Your task to perform on an android device: Show me productivity apps on the Play Store Image 0: 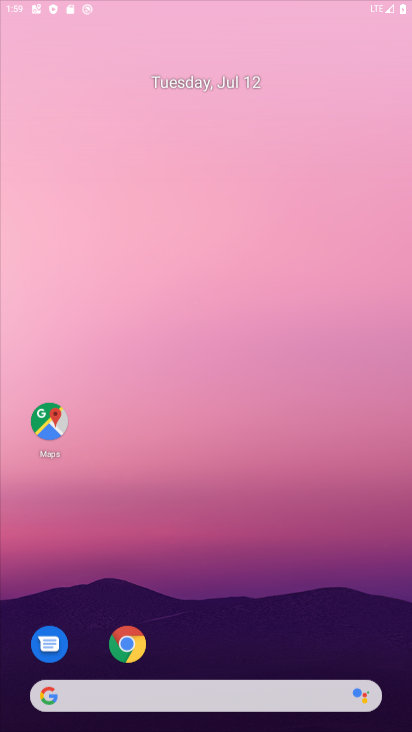
Step 0: click (173, 120)
Your task to perform on an android device: Show me productivity apps on the Play Store Image 1: 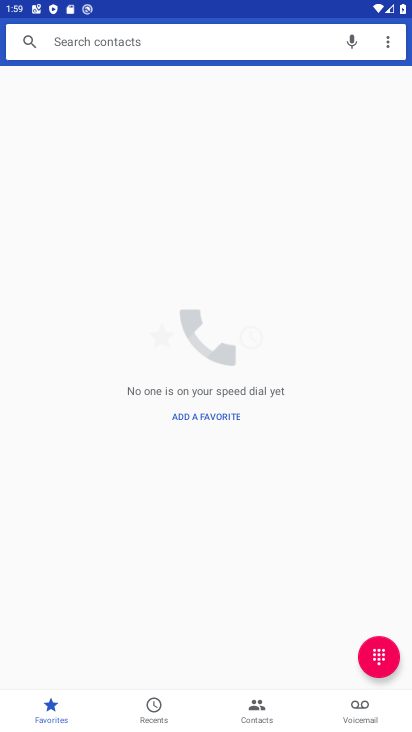
Step 1: press home button
Your task to perform on an android device: Show me productivity apps on the Play Store Image 2: 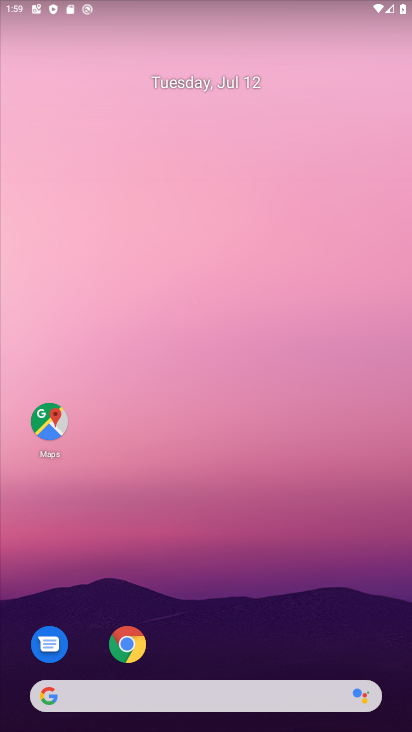
Step 2: drag from (217, 664) to (194, 22)
Your task to perform on an android device: Show me productivity apps on the Play Store Image 3: 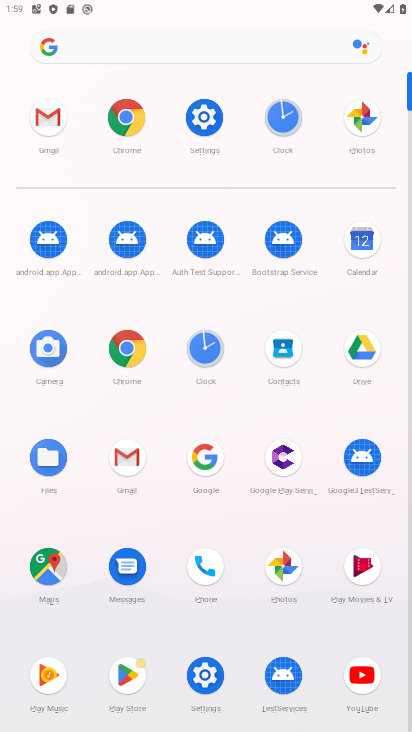
Step 3: click (125, 680)
Your task to perform on an android device: Show me productivity apps on the Play Store Image 4: 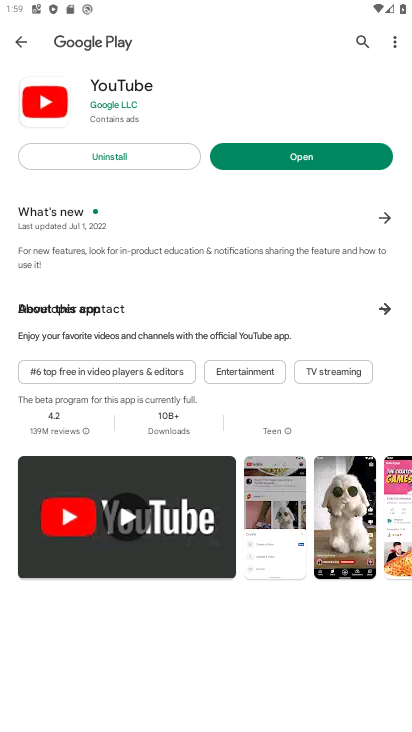
Step 4: click (20, 42)
Your task to perform on an android device: Show me productivity apps on the Play Store Image 5: 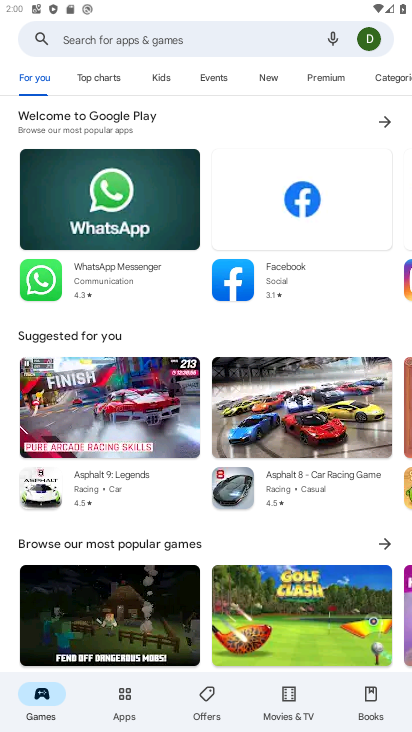
Step 5: click (130, 699)
Your task to perform on an android device: Show me productivity apps on the Play Store Image 6: 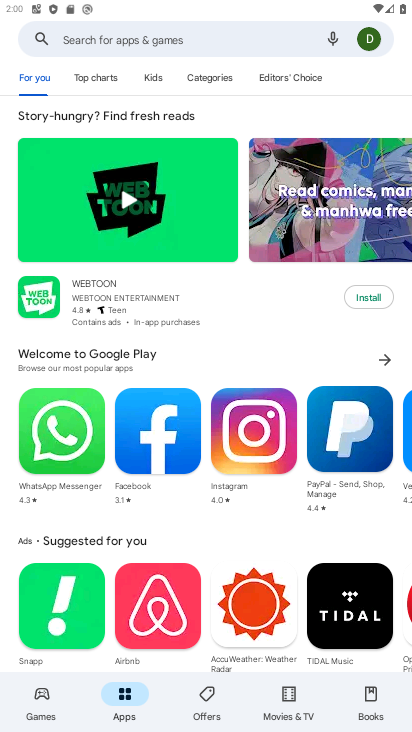
Step 6: click (204, 70)
Your task to perform on an android device: Show me productivity apps on the Play Store Image 7: 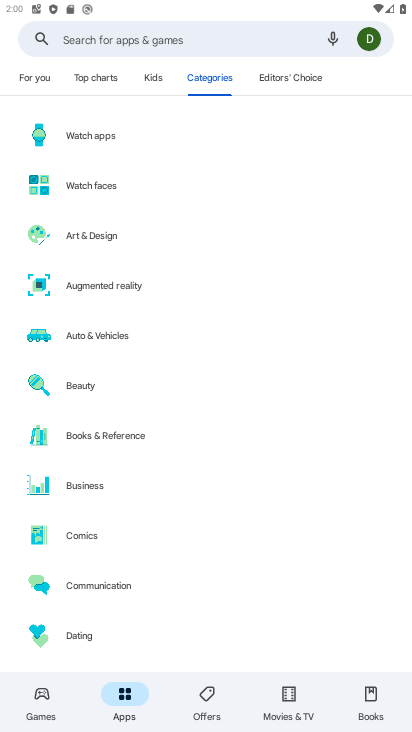
Step 7: drag from (150, 518) to (149, 154)
Your task to perform on an android device: Show me productivity apps on the Play Store Image 8: 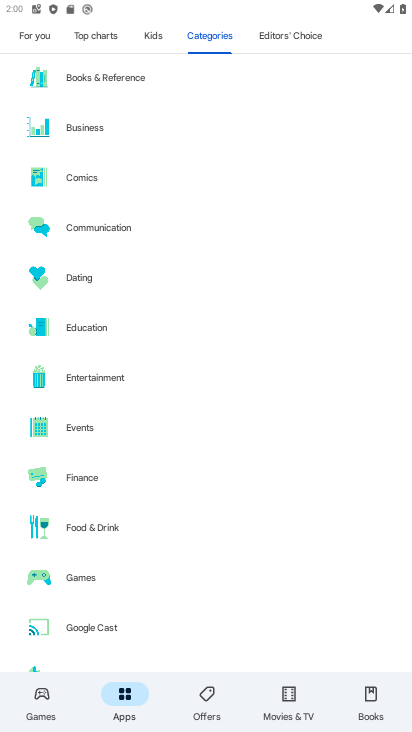
Step 8: drag from (131, 640) to (127, 279)
Your task to perform on an android device: Show me productivity apps on the Play Store Image 9: 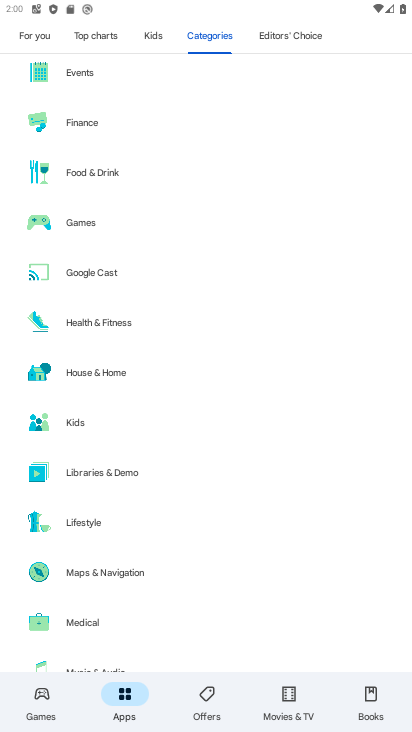
Step 9: drag from (108, 568) to (130, 330)
Your task to perform on an android device: Show me productivity apps on the Play Store Image 10: 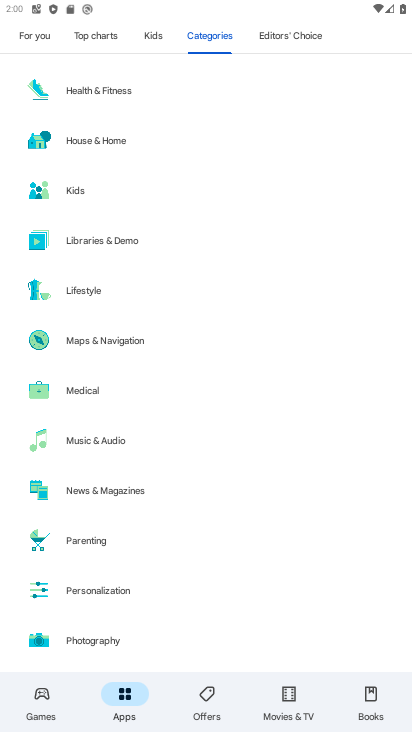
Step 10: drag from (100, 578) to (119, 403)
Your task to perform on an android device: Show me productivity apps on the Play Store Image 11: 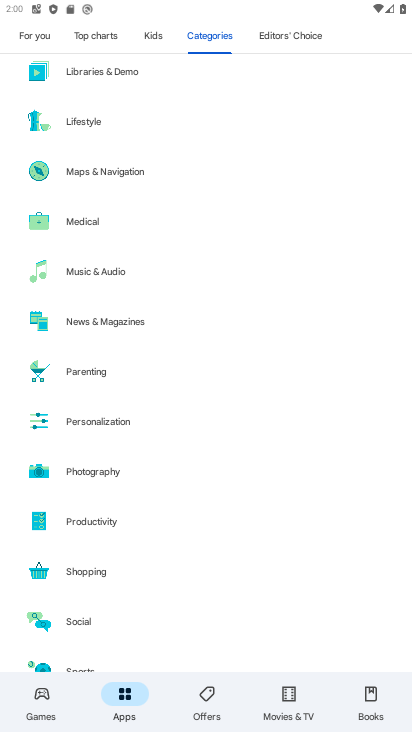
Step 11: click (106, 515)
Your task to perform on an android device: Show me productivity apps on the Play Store Image 12: 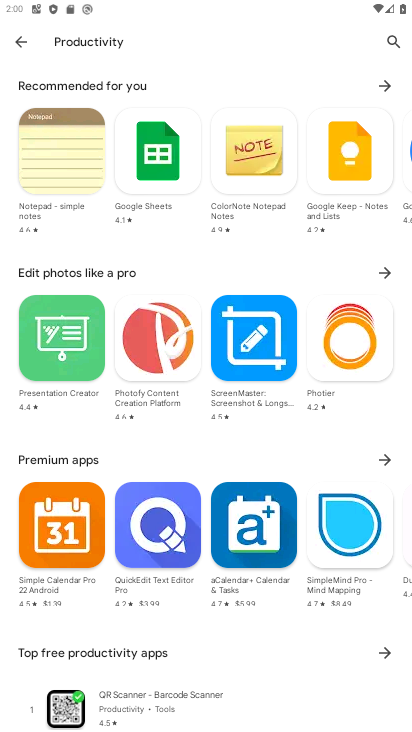
Step 12: task complete